Your task to perform on an android device: Go to sound settings Image 0: 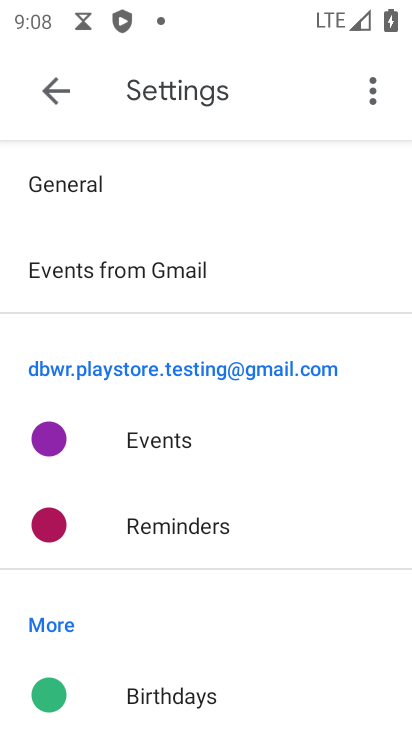
Step 0: press back button
Your task to perform on an android device: Go to sound settings Image 1: 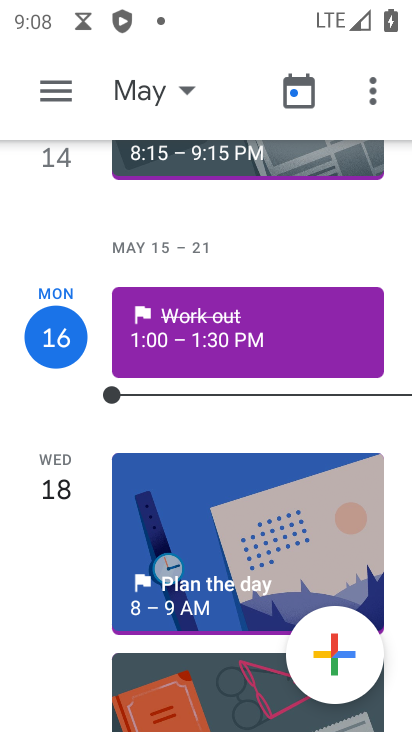
Step 1: press back button
Your task to perform on an android device: Go to sound settings Image 2: 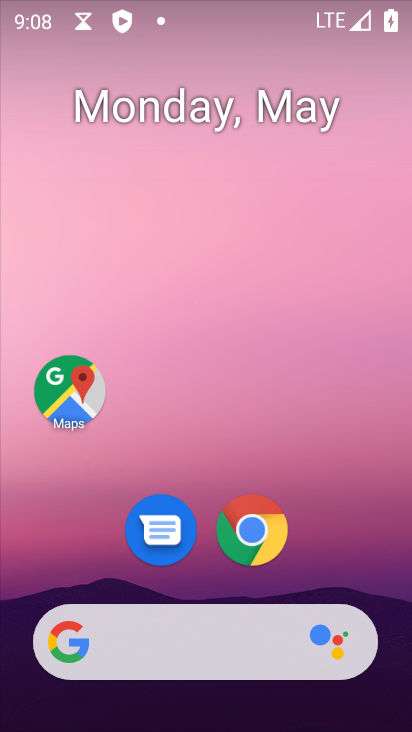
Step 2: drag from (331, 461) to (281, 25)
Your task to perform on an android device: Go to sound settings Image 3: 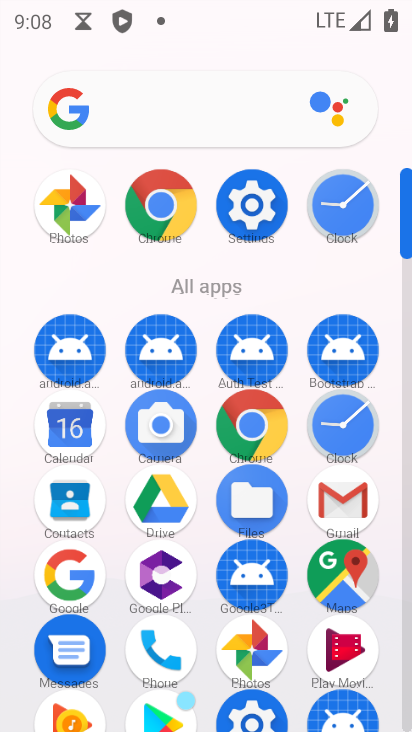
Step 3: click (253, 205)
Your task to perform on an android device: Go to sound settings Image 4: 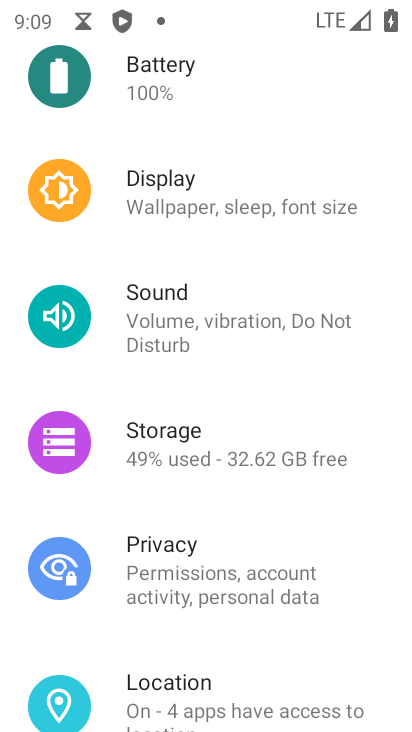
Step 4: click (222, 328)
Your task to perform on an android device: Go to sound settings Image 5: 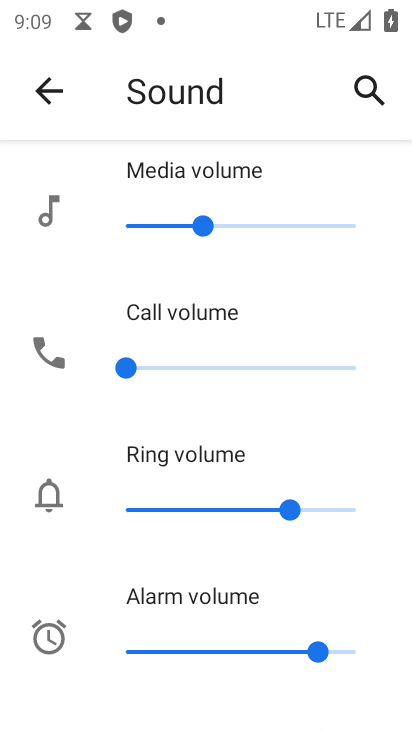
Step 5: task complete